Your task to perform on an android device: all mails in gmail Image 0: 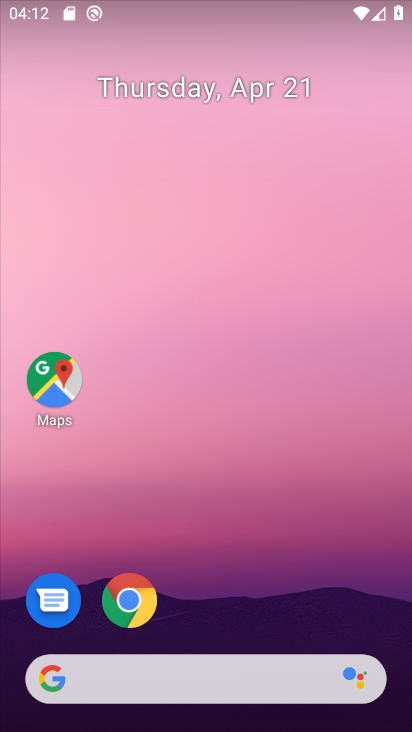
Step 0: drag from (387, 607) to (391, 40)
Your task to perform on an android device: all mails in gmail Image 1: 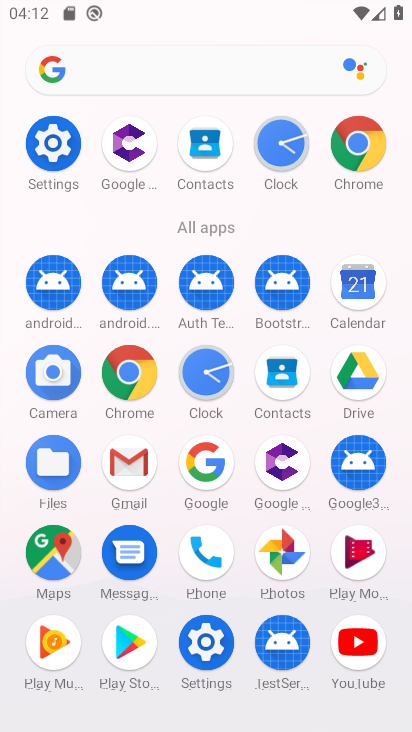
Step 1: click (139, 470)
Your task to perform on an android device: all mails in gmail Image 2: 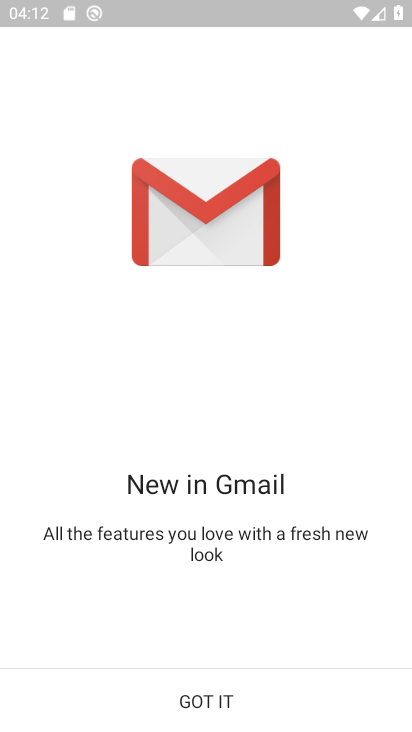
Step 2: click (213, 710)
Your task to perform on an android device: all mails in gmail Image 3: 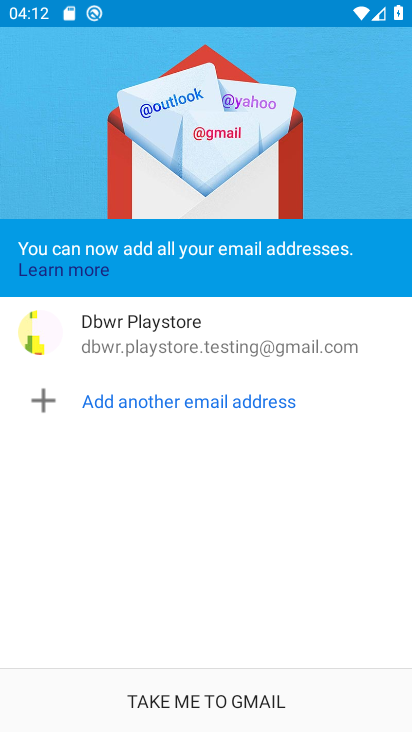
Step 3: click (214, 700)
Your task to perform on an android device: all mails in gmail Image 4: 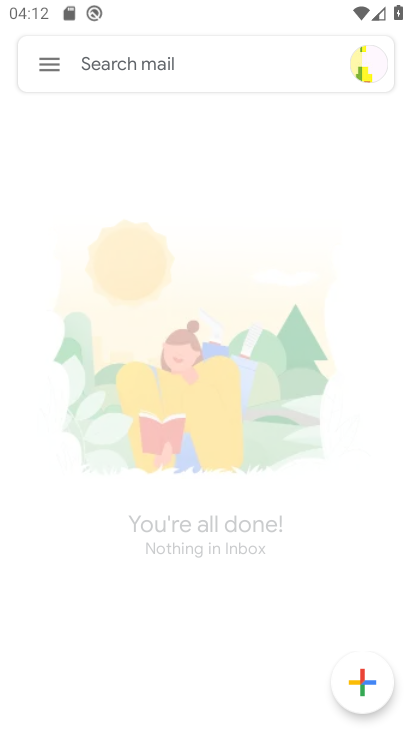
Step 4: click (44, 69)
Your task to perform on an android device: all mails in gmail Image 5: 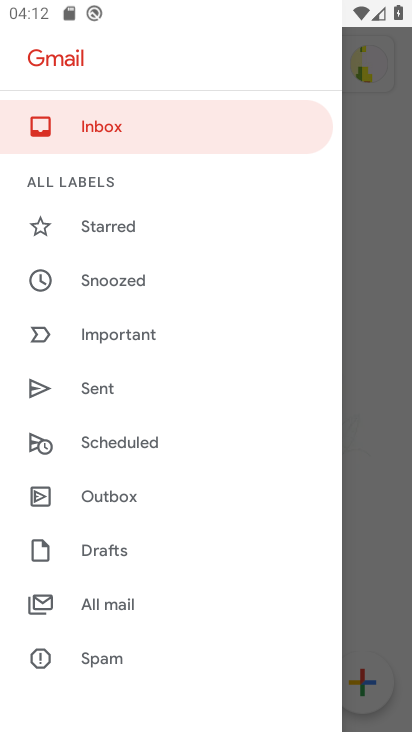
Step 5: click (114, 598)
Your task to perform on an android device: all mails in gmail Image 6: 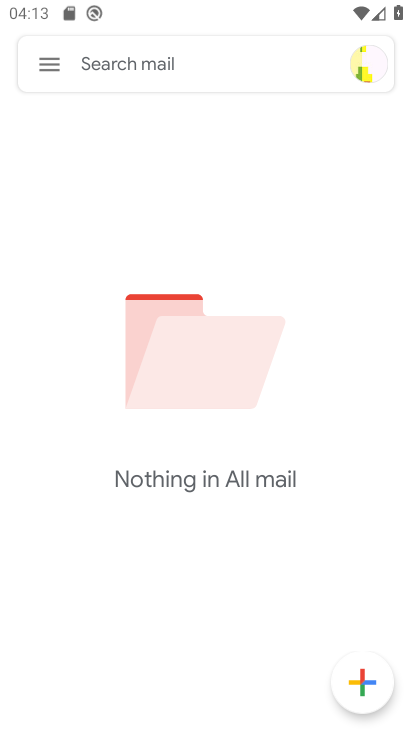
Step 6: task complete